Your task to perform on an android device: empty trash in the gmail app Image 0: 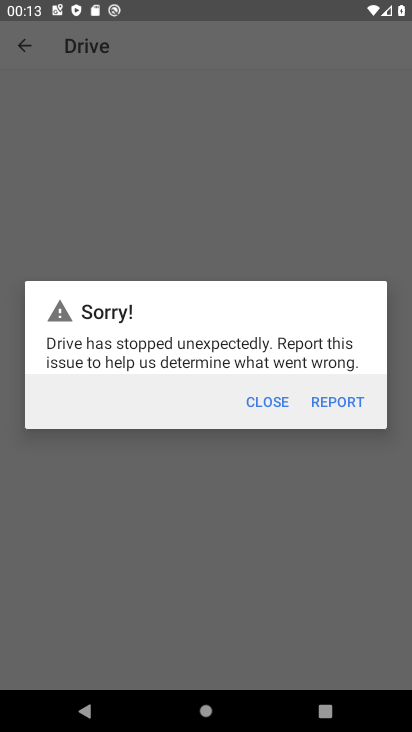
Step 0: press home button
Your task to perform on an android device: empty trash in the gmail app Image 1: 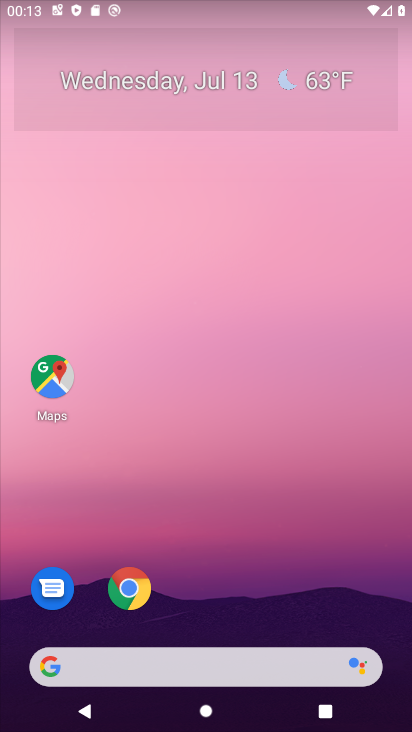
Step 1: drag from (34, 692) to (301, 73)
Your task to perform on an android device: empty trash in the gmail app Image 2: 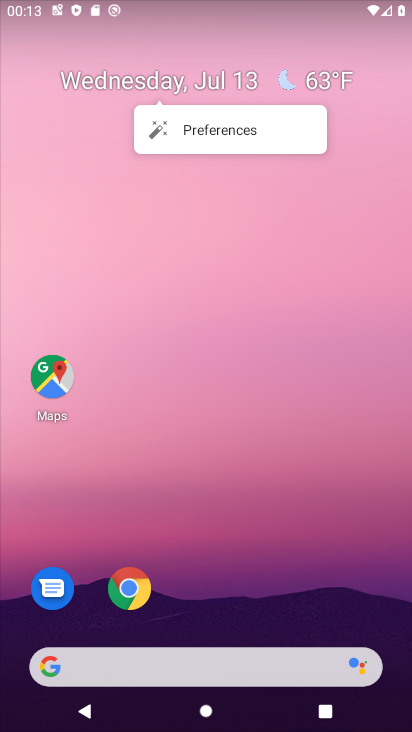
Step 2: drag from (45, 639) to (339, 30)
Your task to perform on an android device: empty trash in the gmail app Image 3: 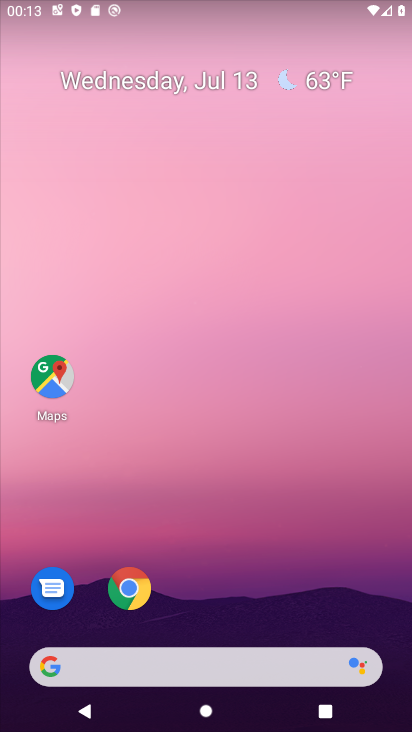
Step 3: drag from (18, 707) to (234, 121)
Your task to perform on an android device: empty trash in the gmail app Image 4: 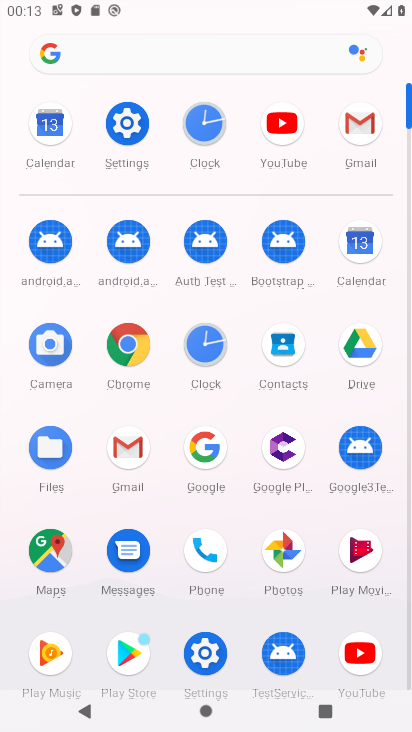
Step 4: click (129, 450)
Your task to perform on an android device: empty trash in the gmail app Image 5: 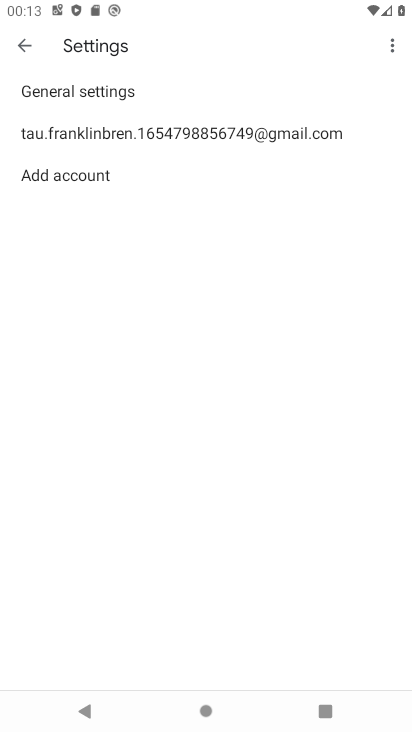
Step 5: click (29, 42)
Your task to perform on an android device: empty trash in the gmail app Image 6: 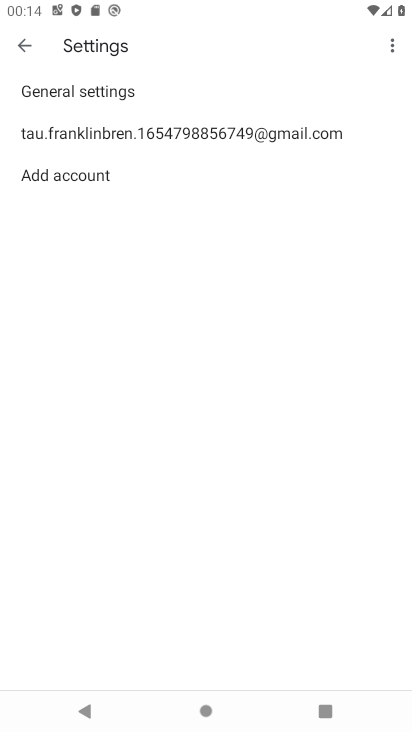
Step 6: click (35, 49)
Your task to perform on an android device: empty trash in the gmail app Image 7: 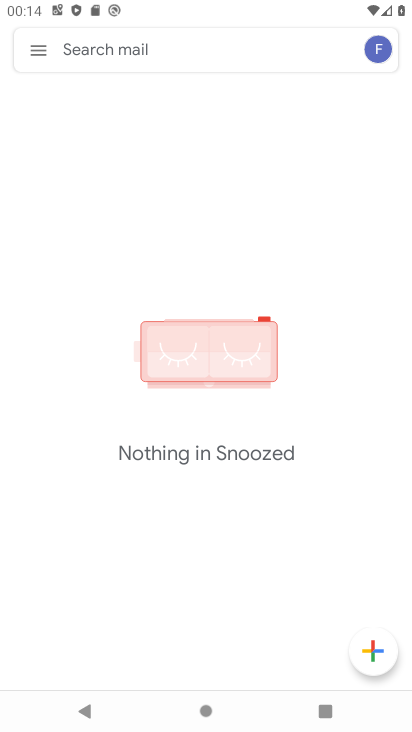
Step 7: click (28, 59)
Your task to perform on an android device: empty trash in the gmail app Image 8: 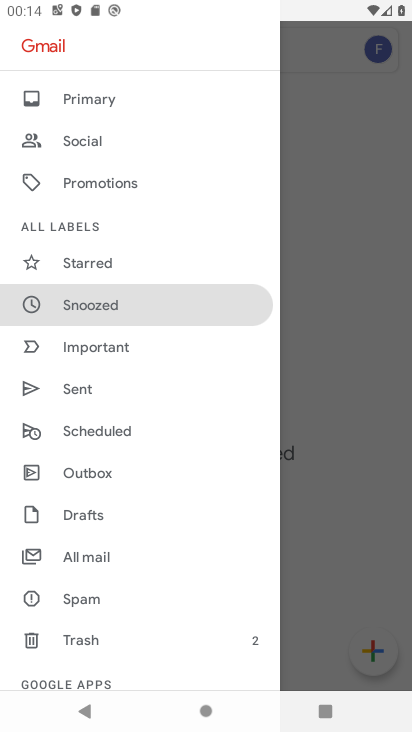
Step 8: click (63, 648)
Your task to perform on an android device: empty trash in the gmail app Image 9: 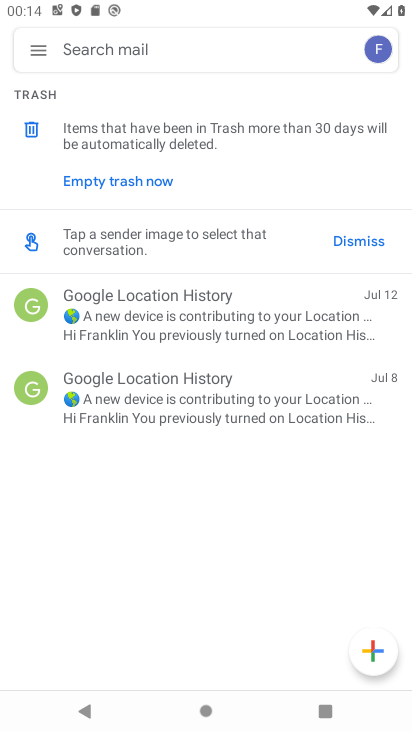
Step 9: click (24, 117)
Your task to perform on an android device: empty trash in the gmail app Image 10: 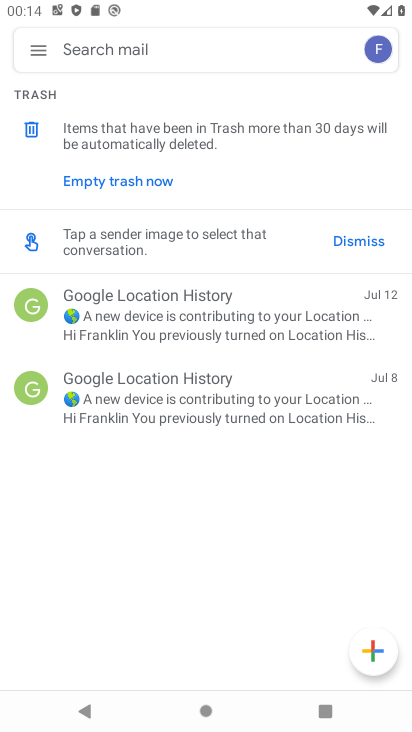
Step 10: click (107, 184)
Your task to perform on an android device: empty trash in the gmail app Image 11: 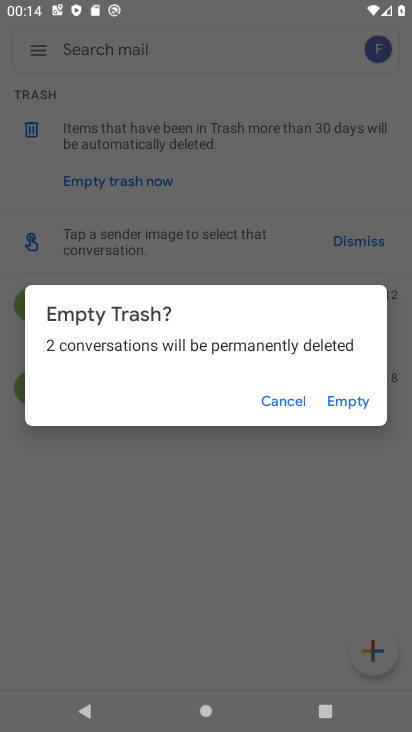
Step 11: click (341, 403)
Your task to perform on an android device: empty trash in the gmail app Image 12: 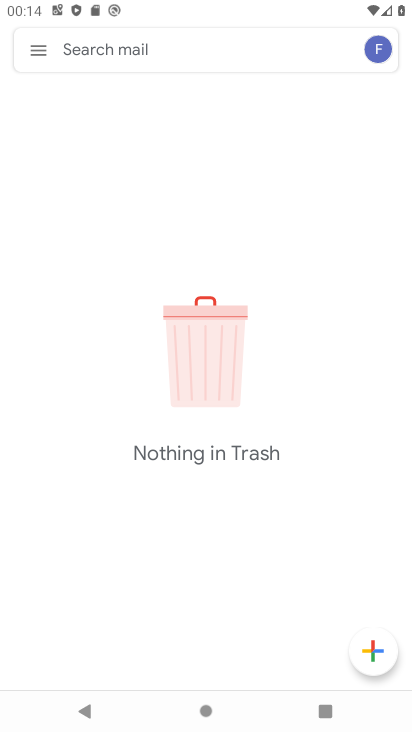
Step 12: task complete